Your task to perform on an android device: turn on notifications settings in the gmail app Image 0: 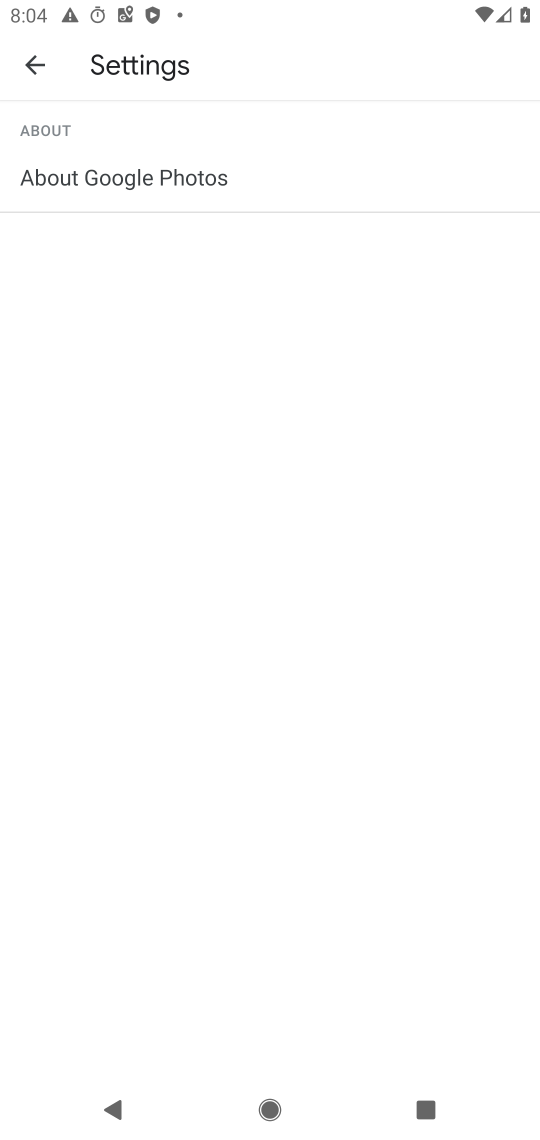
Step 0: press home button
Your task to perform on an android device: turn on notifications settings in the gmail app Image 1: 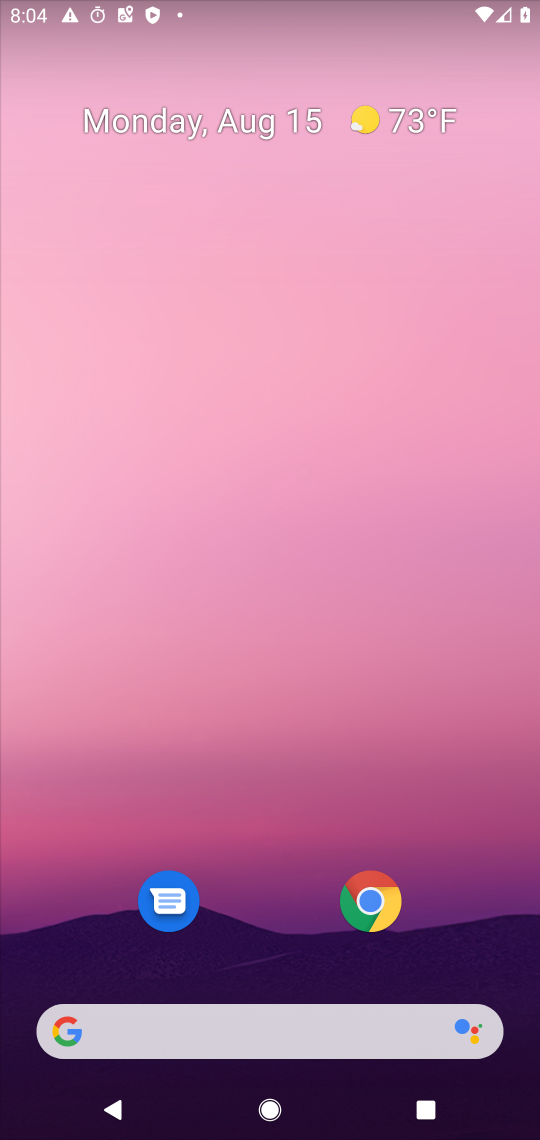
Step 1: drag from (237, 954) to (259, 20)
Your task to perform on an android device: turn on notifications settings in the gmail app Image 2: 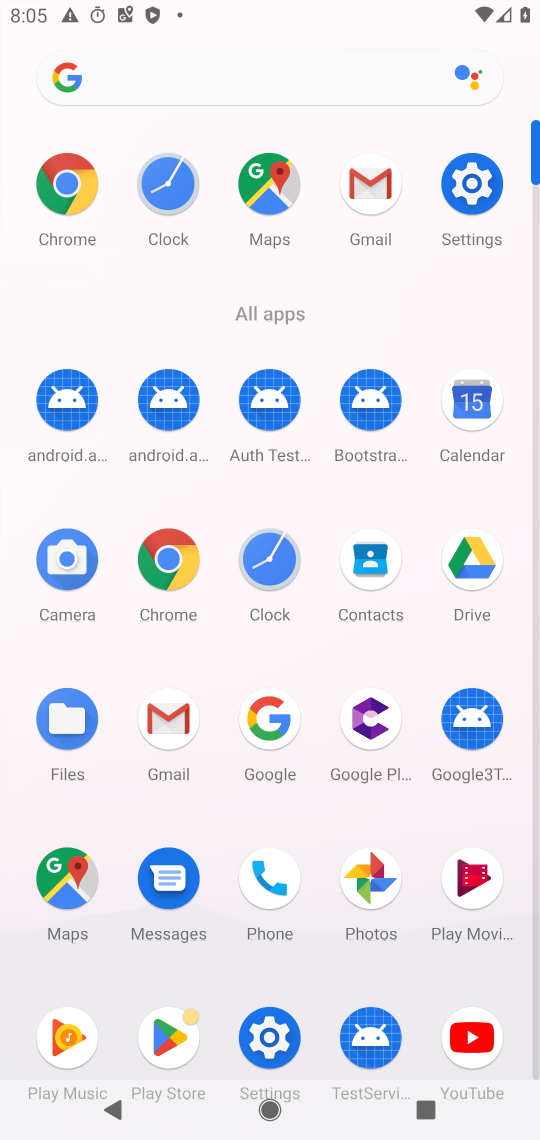
Step 2: click (169, 727)
Your task to perform on an android device: turn on notifications settings in the gmail app Image 3: 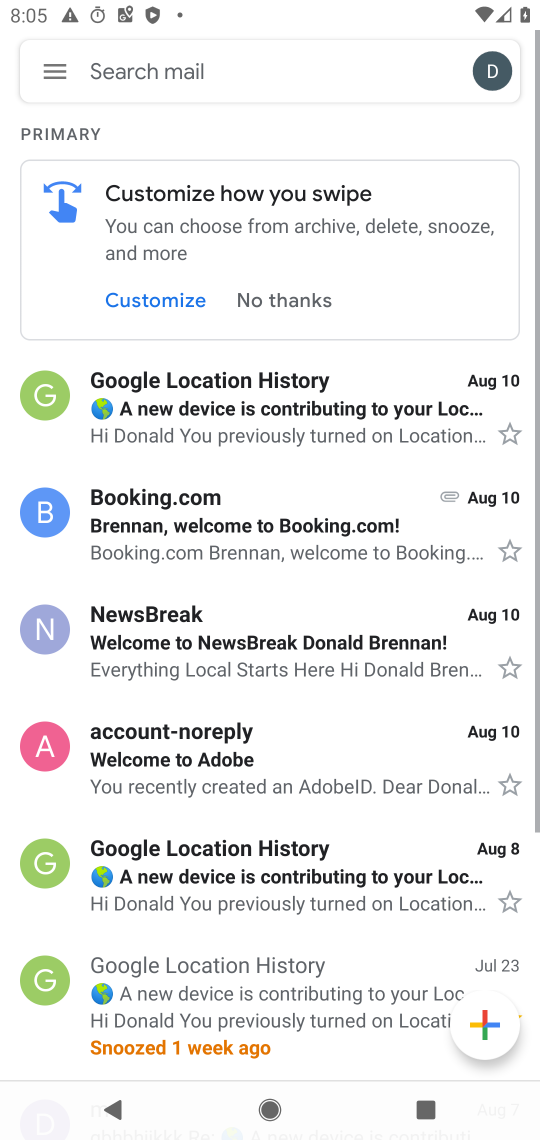
Step 3: click (57, 67)
Your task to perform on an android device: turn on notifications settings in the gmail app Image 4: 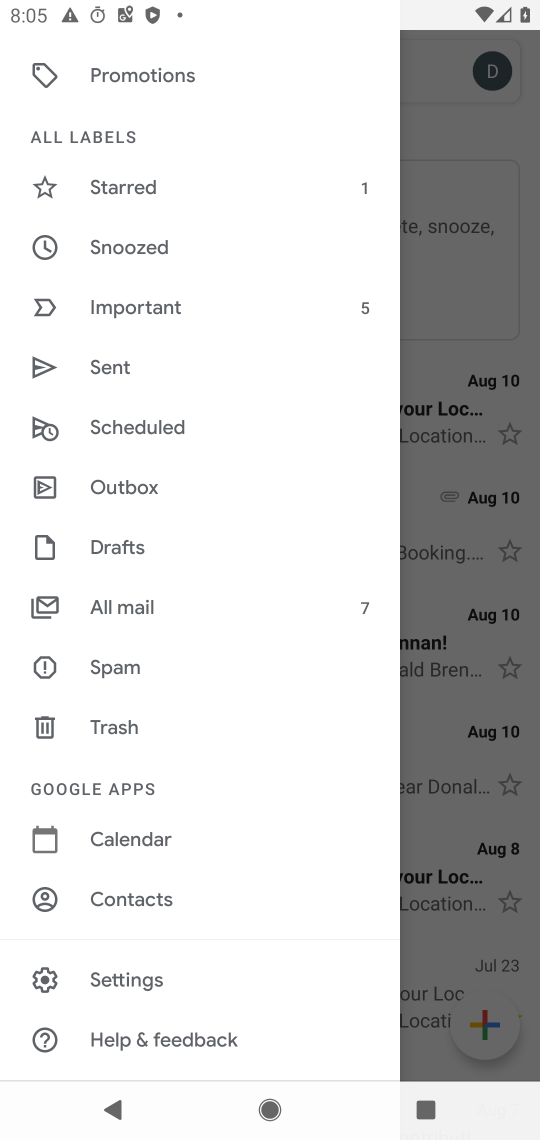
Step 4: click (145, 974)
Your task to perform on an android device: turn on notifications settings in the gmail app Image 5: 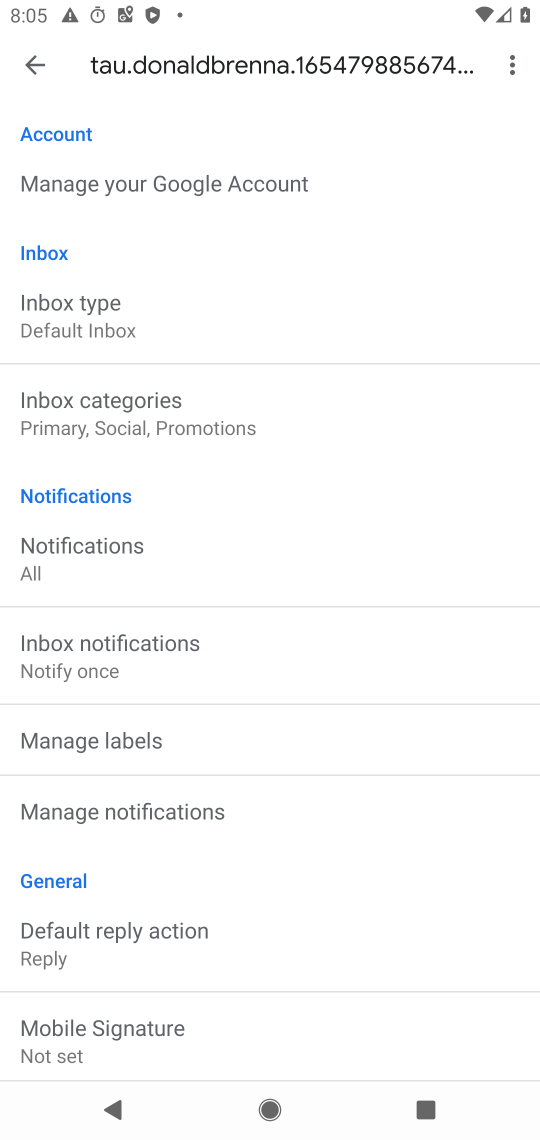
Step 5: click (40, 61)
Your task to perform on an android device: turn on notifications settings in the gmail app Image 6: 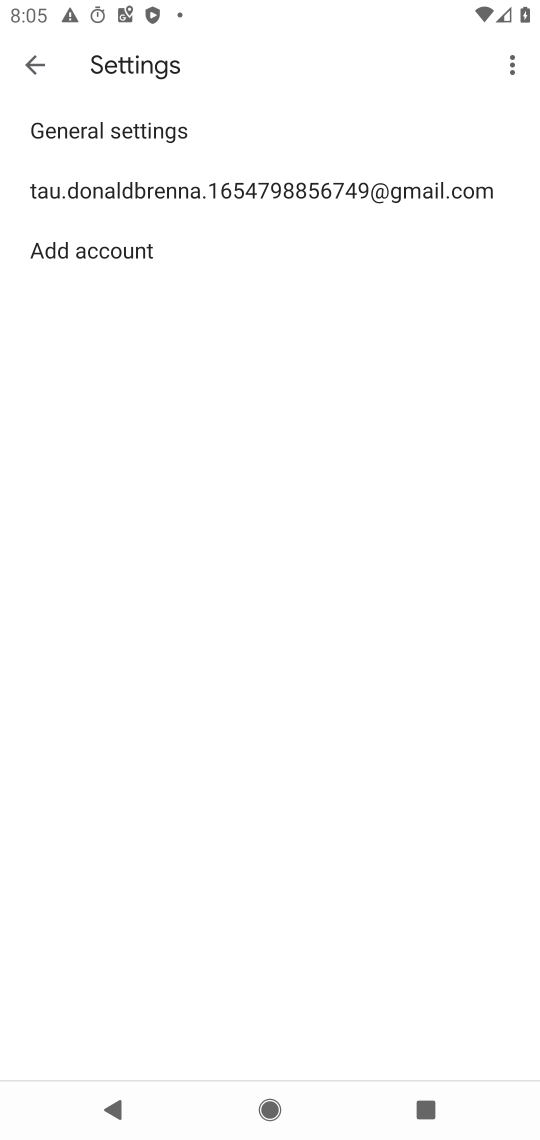
Step 6: click (157, 123)
Your task to perform on an android device: turn on notifications settings in the gmail app Image 7: 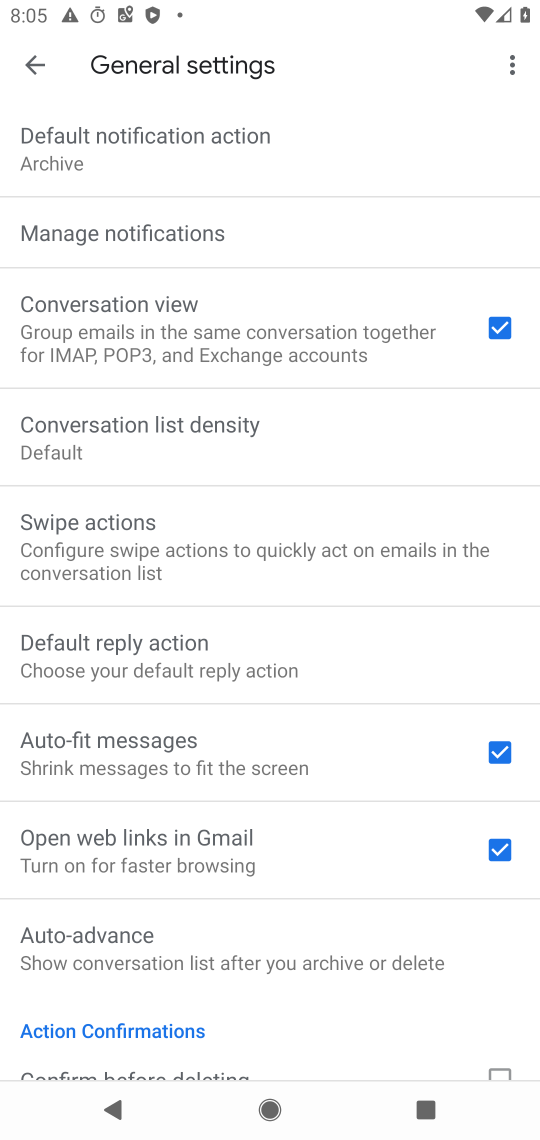
Step 7: click (159, 238)
Your task to perform on an android device: turn on notifications settings in the gmail app Image 8: 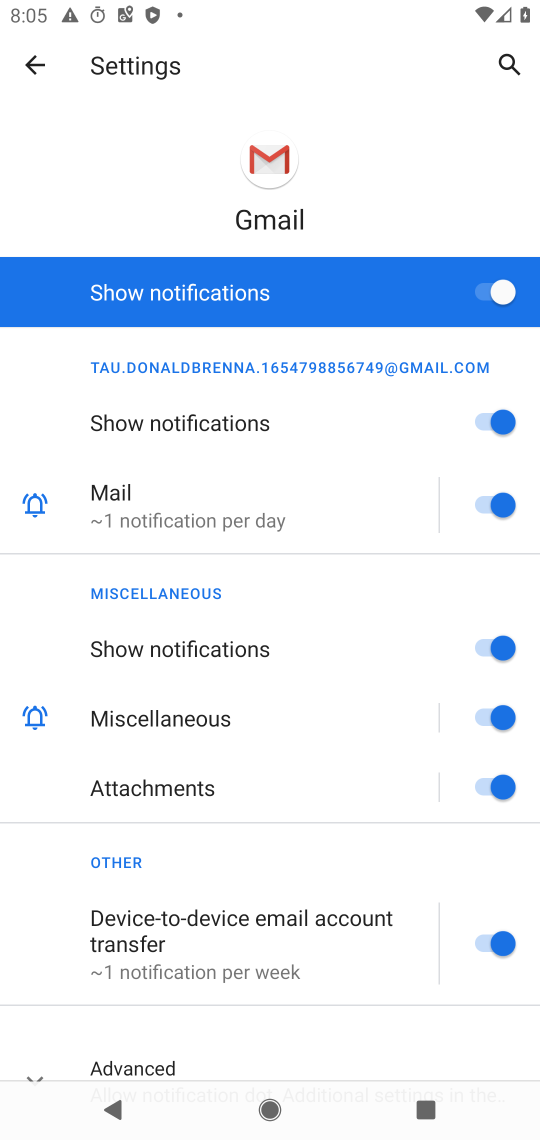
Step 8: task complete